Your task to perform on an android device: Search for "logitech g pro" on target.com, select the first entry, and add it to the cart. Image 0: 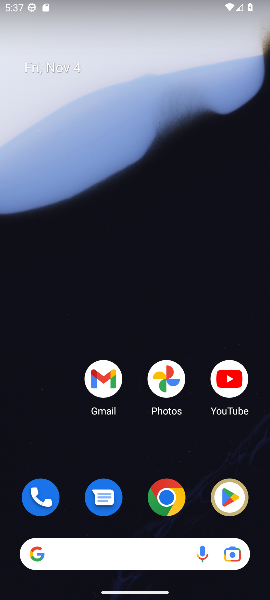
Step 0: click (172, 502)
Your task to perform on an android device: Search for "logitech g pro" on target.com, select the first entry, and add it to the cart. Image 1: 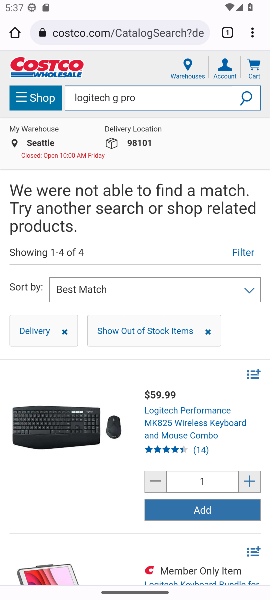
Step 1: click (126, 28)
Your task to perform on an android device: Search for "logitech g pro" on target.com, select the first entry, and add it to the cart. Image 2: 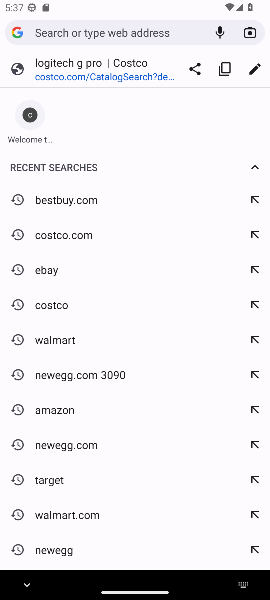
Step 2: click (49, 479)
Your task to perform on an android device: Search for "logitech g pro" on target.com, select the first entry, and add it to the cart. Image 3: 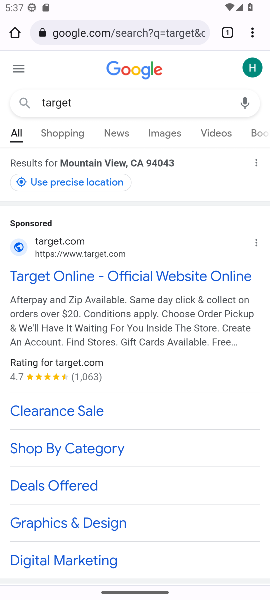
Step 3: drag from (186, 403) to (189, 146)
Your task to perform on an android device: Search for "logitech g pro" on target.com, select the first entry, and add it to the cart. Image 4: 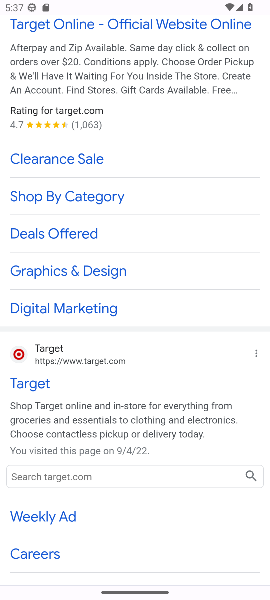
Step 4: click (68, 357)
Your task to perform on an android device: Search for "logitech g pro" on target.com, select the first entry, and add it to the cart. Image 5: 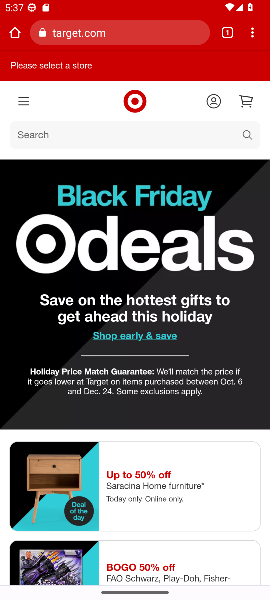
Step 5: click (240, 133)
Your task to perform on an android device: Search for "logitech g pro" on target.com, select the first entry, and add it to the cart. Image 6: 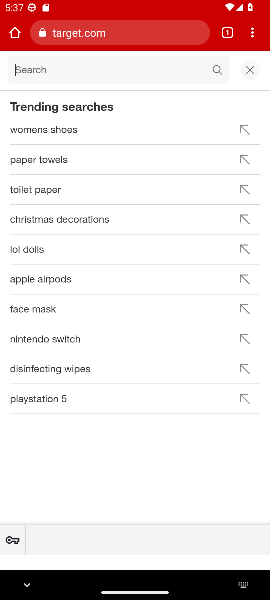
Step 6: type "logitech g pro"
Your task to perform on an android device: Search for "logitech g pro" on target.com, select the first entry, and add it to the cart. Image 7: 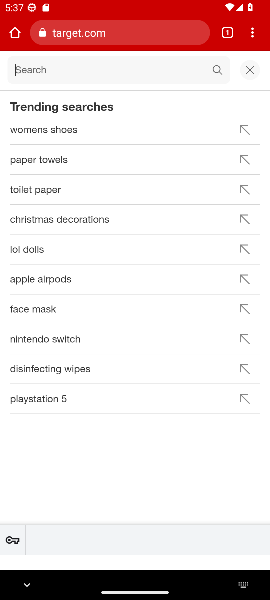
Step 7: type ""
Your task to perform on an android device: Search for "logitech g pro" on target.com, select the first entry, and add it to the cart. Image 8: 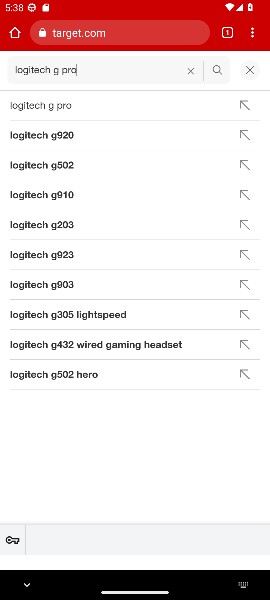
Step 8: click (43, 104)
Your task to perform on an android device: Search for "logitech g pro" on target.com, select the first entry, and add it to the cart. Image 9: 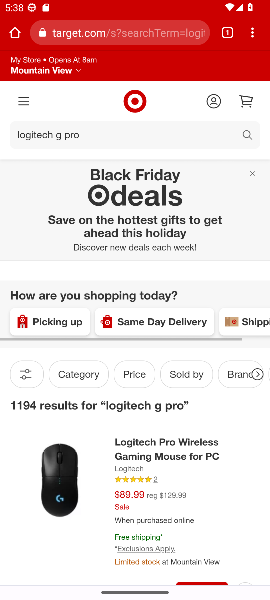
Step 9: drag from (136, 415) to (164, 323)
Your task to perform on an android device: Search for "logitech g pro" on target.com, select the first entry, and add it to the cart. Image 10: 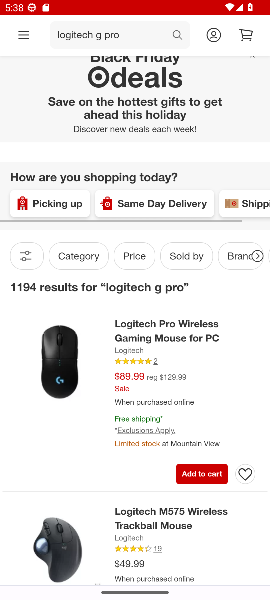
Step 10: click (146, 389)
Your task to perform on an android device: Search for "logitech g pro" on target.com, select the first entry, and add it to the cart. Image 11: 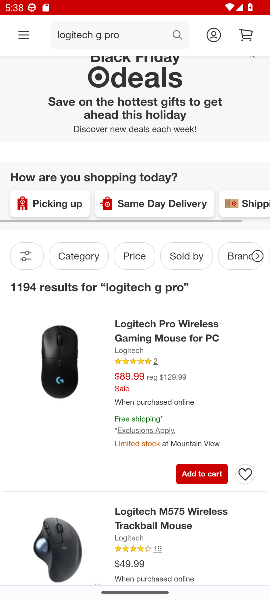
Step 11: task complete